Your task to perform on an android device: Go to calendar. Show me events next week Image 0: 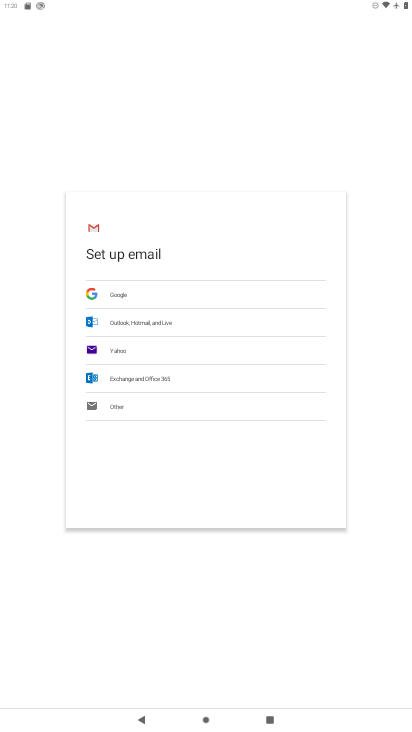
Step 0: press home button
Your task to perform on an android device: Go to calendar. Show me events next week Image 1: 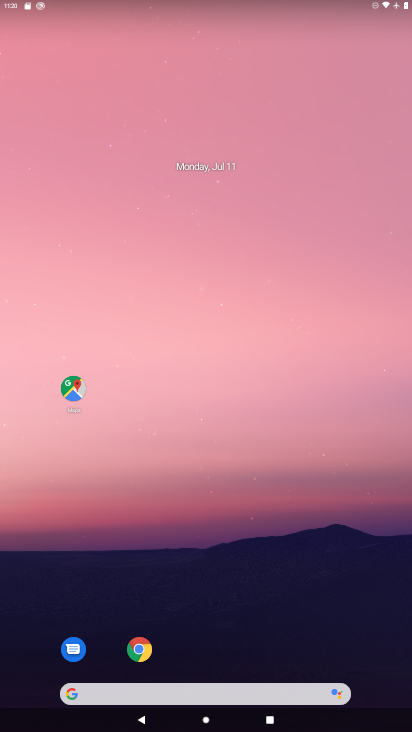
Step 1: drag from (335, 584) to (262, 102)
Your task to perform on an android device: Go to calendar. Show me events next week Image 2: 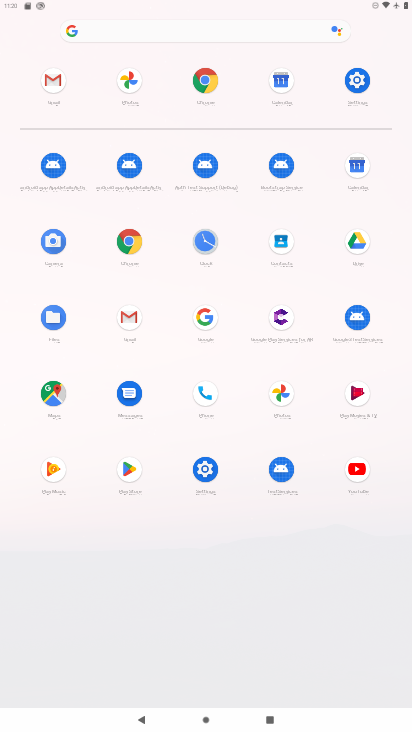
Step 2: click (282, 80)
Your task to perform on an android device: Go to calendar. Show me events next week Image 3: 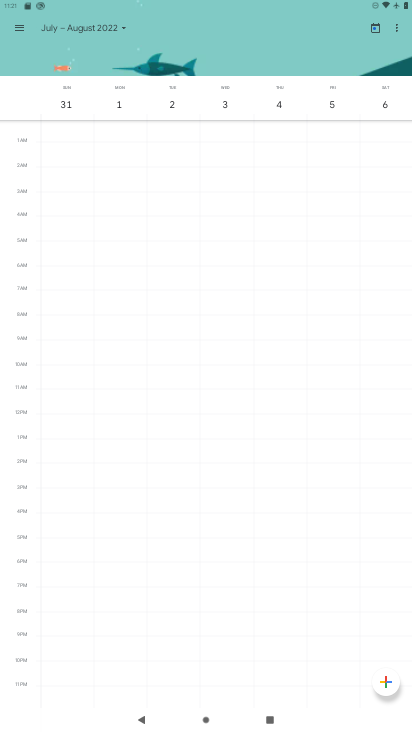
Step 3: click (83, 30)
Your task to perform on an android device: Go to calendar. Show me events next week Image 4: 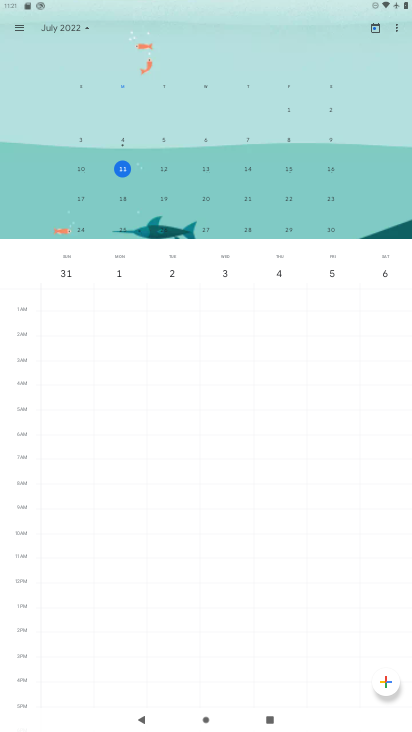
Step 4: drag from (78, 160) to (382, 101)
Your task to perform on an android device: Go to calendar. Show me events next week Image 5: 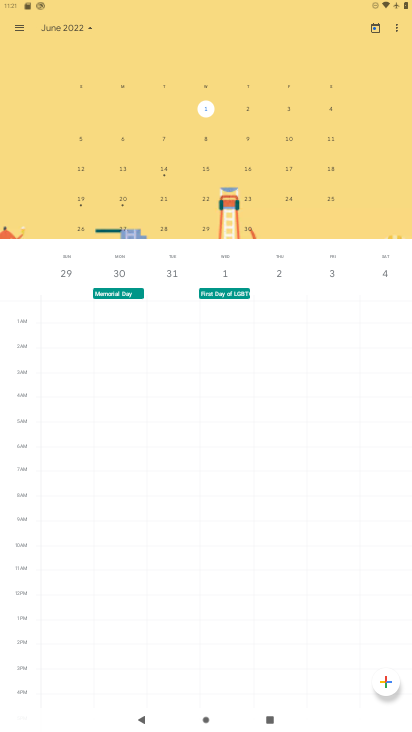
Step 5: drag from (318, 162) to (112, 155)
Your task to perform on an android device: Go to calendar. Show me events next week Image 6: 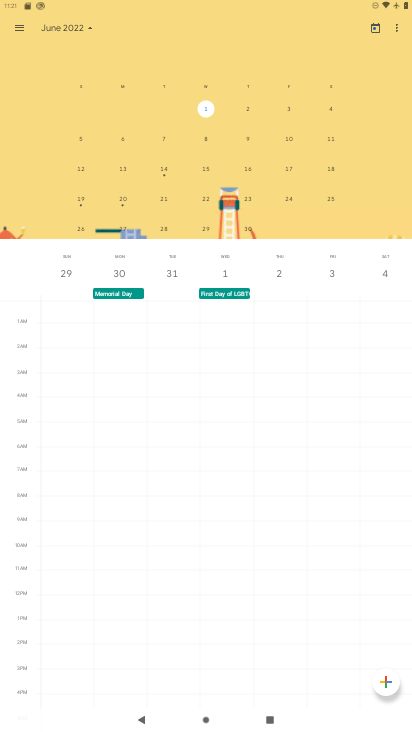
Step 6: drag from (333, 180) to (79, 179)
Your task to perform on an android device: Go to calendar. Show me events next week Image 7: 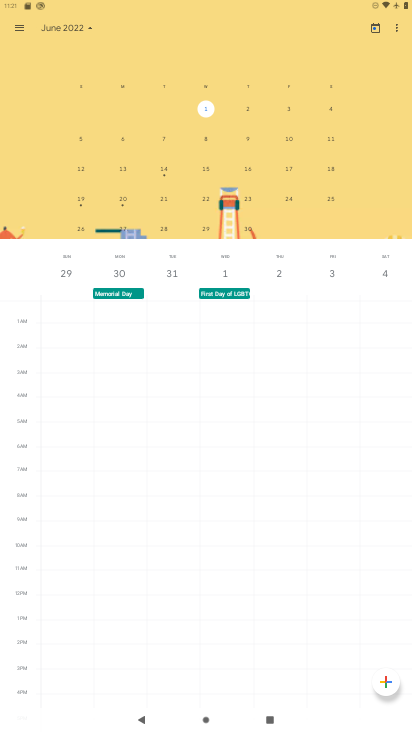
Step 7: drag from (349, 176) to (48, 182)
Your task to perform on an android device: Go to calendar. Show me events next week Image 8: 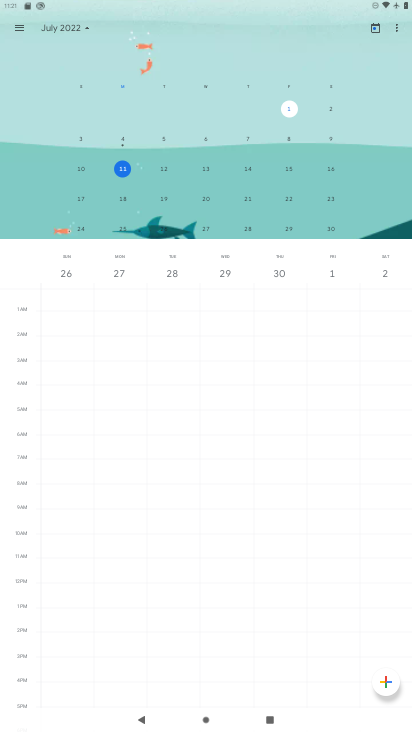
Step 8: click (125, 194)
Your task to perform on an android device: Go to calendar. Show me events next week Image 9: 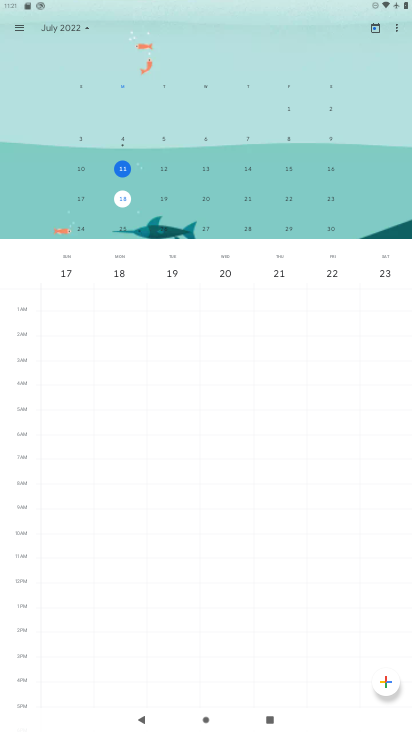
Step 9: task complete